Your task to perform on an android device: make emails show in primary in the gmail app Image 0: 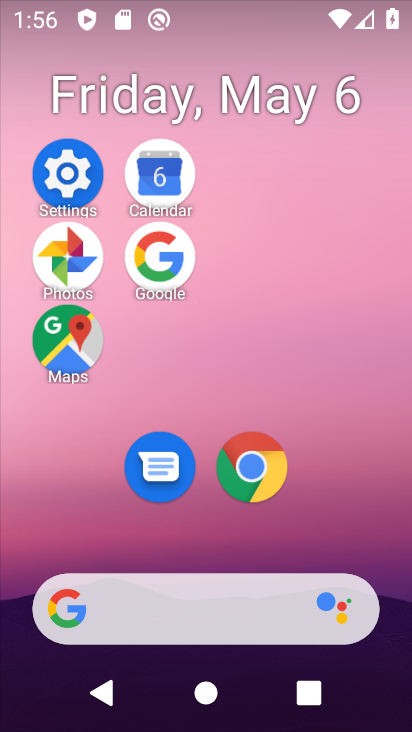
Step 0: click (72, 164)
Your task to perform on an android device: make emails show in primary in the gmail app Image 1: 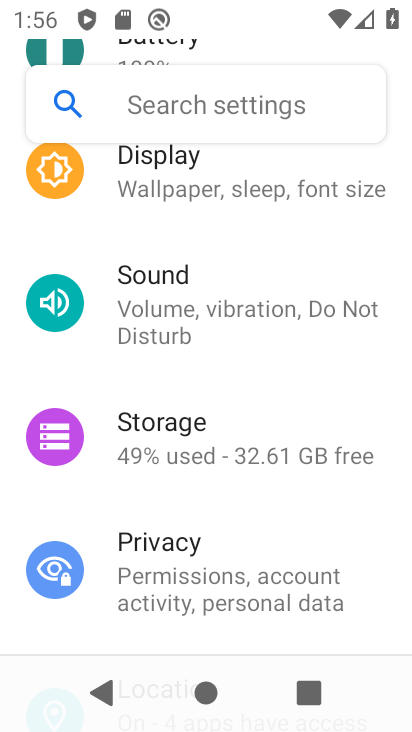
Step 1: click (197, 204)
Your task to perform on an android device: make emails show in primary in the gmail app Image 2: 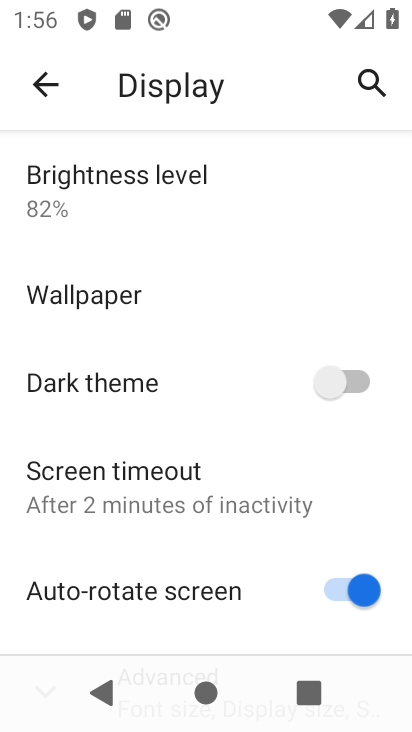
Step 2: press home button
Your task to perform on an android device: make emails show in primary in the gmail app Image 3: 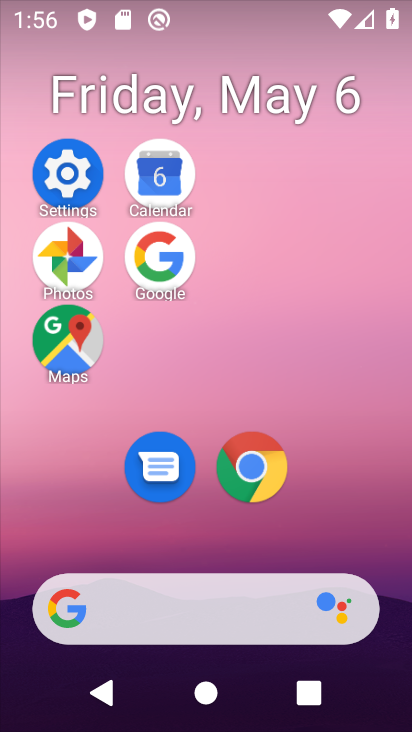
Step 3: drag from (327, 524) to (259, 174)
Your task to perform on an android device: make emails show in primary in the gmail app Image 4: 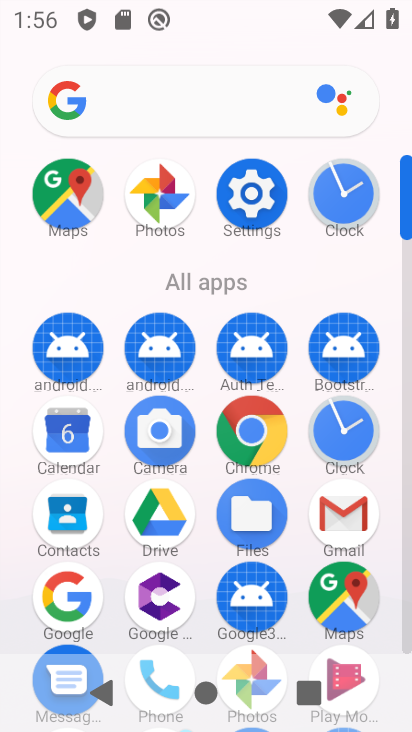
Step 4: drag from (354, 508) to (234, 225)
Your task to perform on an android device: make emails show in primary in the gmail app Image 5: 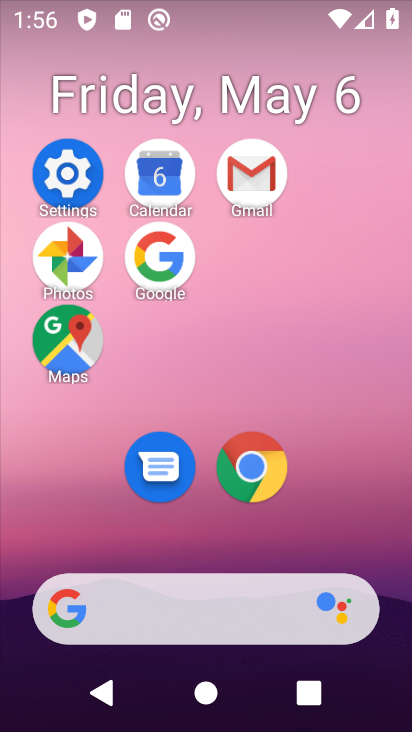
Step 5: click (256, 190)
Your task to perform on an android device: make emails show in primary in the gmail app Image 6: 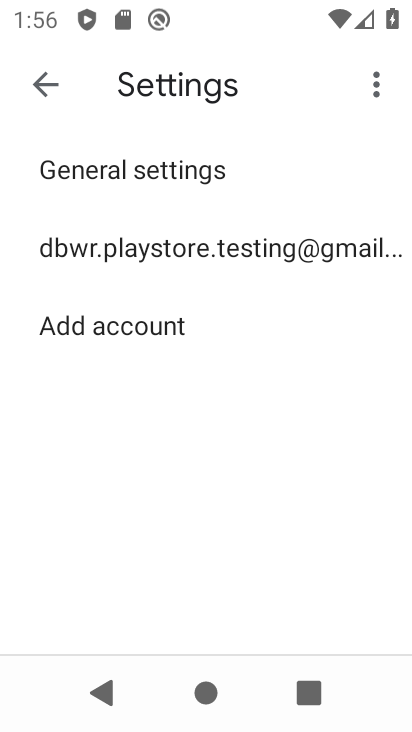
Step 6: click (220, 239)
Your task to perform on an android device: make emails show in primary in the gmail app Image 7: 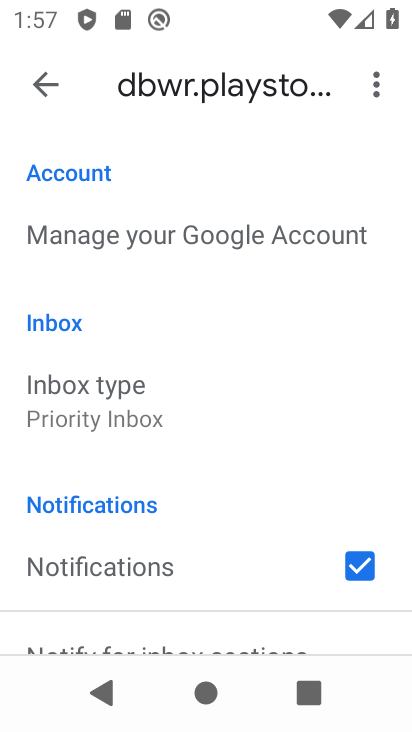
Step 7: click (212, 396)
Your task to perform on an android device: make emails show in primary in the gmail app Image 8: 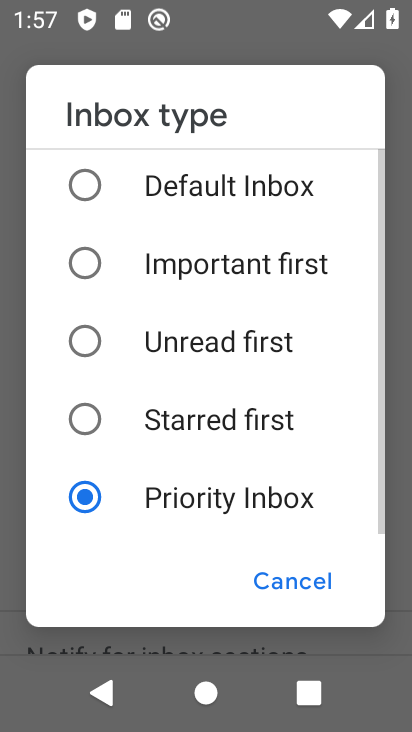
Step 8: click (181, 207)
Your task to perform on an android device: make emails show in primary in the gmail app Image 9: 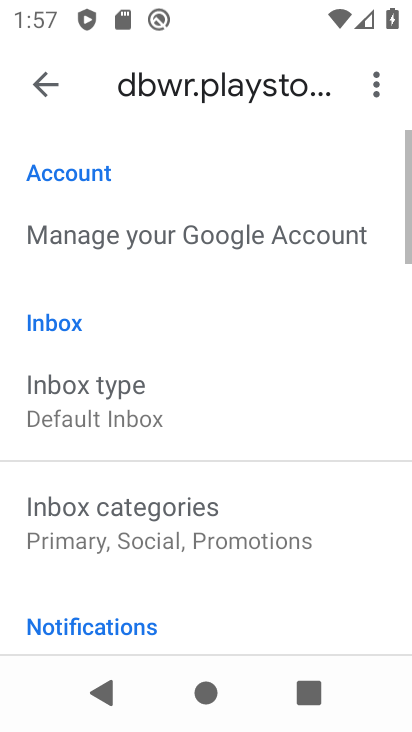
Step 9: click (217, 533)
Your task to perform on an android device: make emails show in primary in the gmail app Image 10: 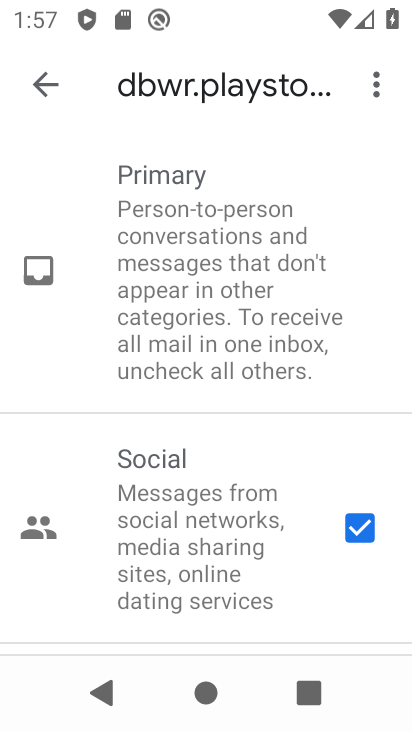
Step 10: click (361, 521)
Your task to perform on an android device: make emails show in primary in the gmail app Image 11: 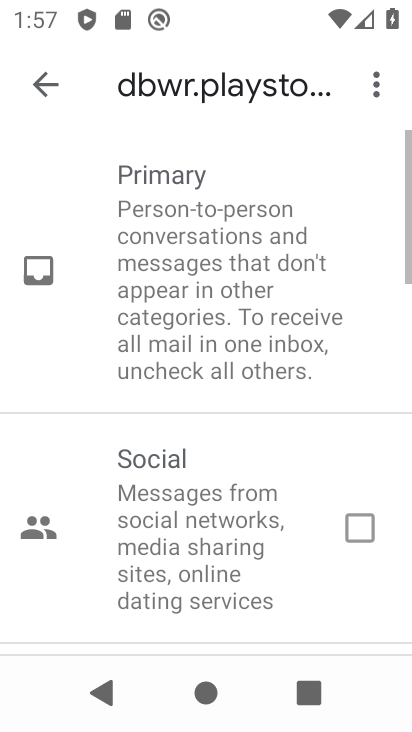
Step 11: drag from (253, 460) to (237, 98)
Your task to perform on an android device: make emails show in primary in the gmail app Image 12: 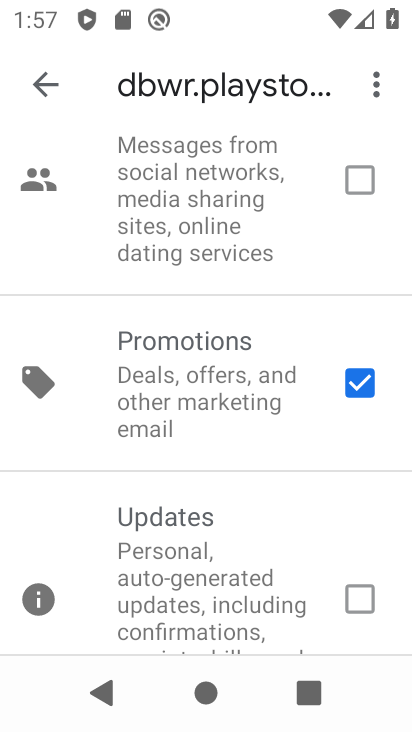
Step 12: click (353, 378)
Your task to perform on an android device: make emails show in primary in the gmail app Image 13: 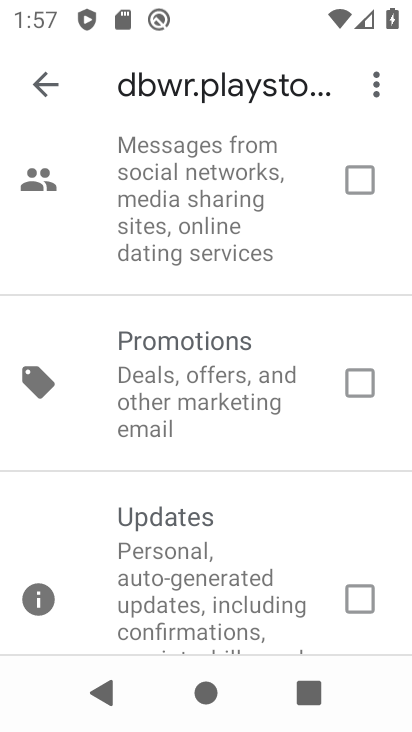
Step 13: task complete